Your task to perform on an android device: Open Chrome and go to the settings page Image 0: 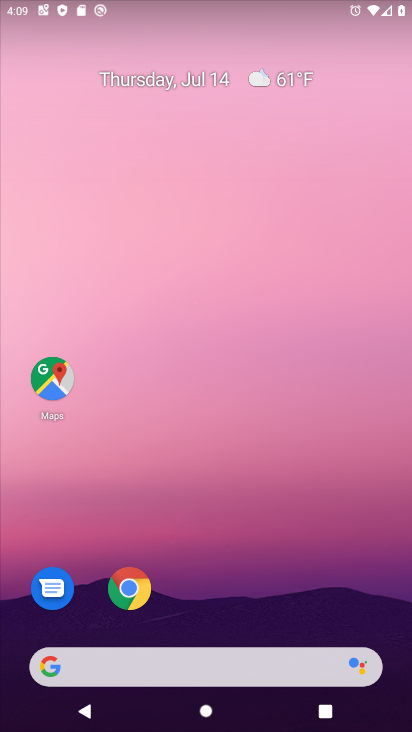
Step 0: press home button
Your task to perform on an android device: Open Chrome and go to the settings page Image 1: 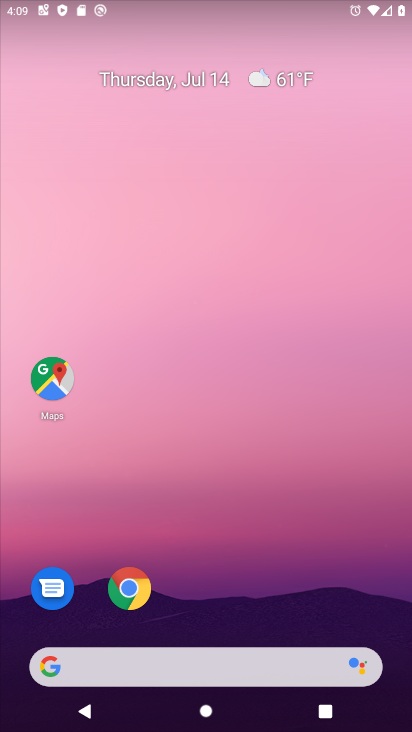
Step 1: click (128, 590)
Your task to perform on an android device: Open Chrome and go to the settings page Image 2: 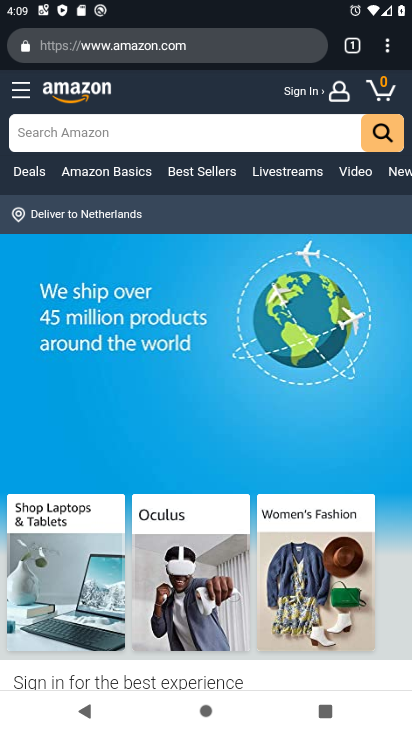
Step 2: task complete